Your task to perform on an android device: Go to sound settings Image 0: 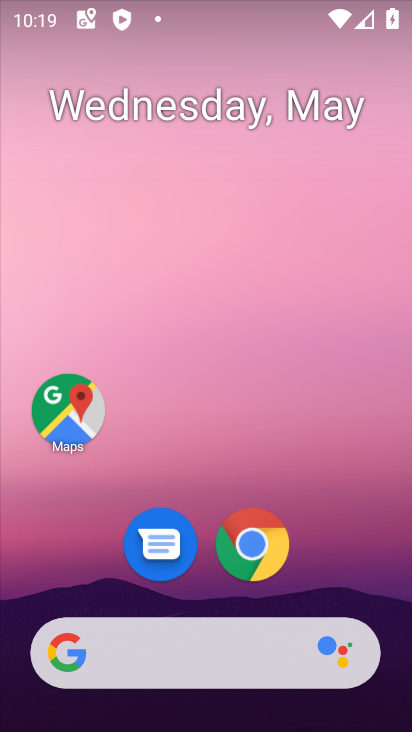
Step 0: drag from (276, 668) to (320, 221)
Your task to perform on an android device: Go to sound settings Image 1: 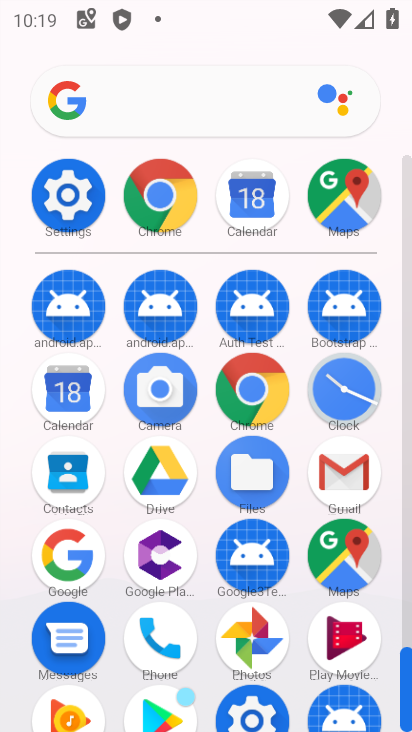
Step 1: click (72, 200)
Your task to perform on an android device: Go to sound settings Image 2: 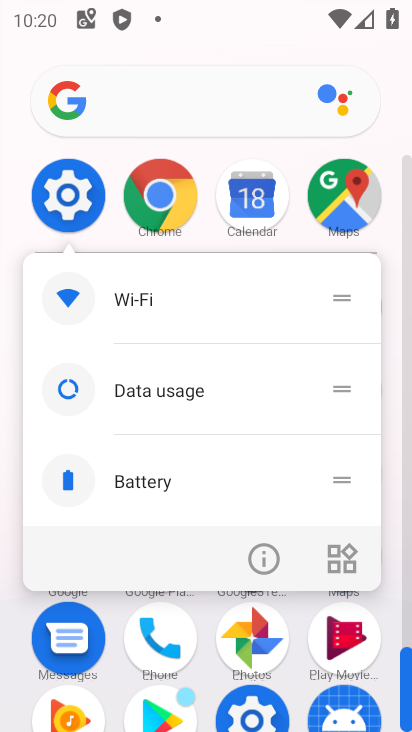
Step 2: click (90, 205)
Your task to perform on an android device: Go to sound settings Image 3: 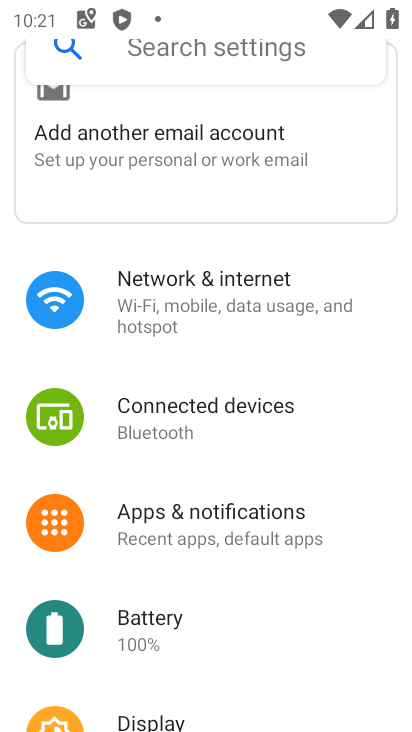
Step 3: drag from (294, 705) to (316, 321)
Your task to perform on an android device: Go to sound settings Image 4: 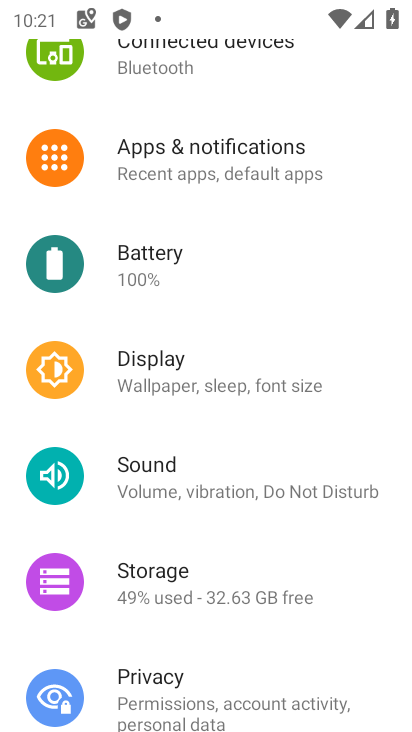
Step 4: click (192, 509)
Your task to perform on an android device: Go to sound settings Image 5: 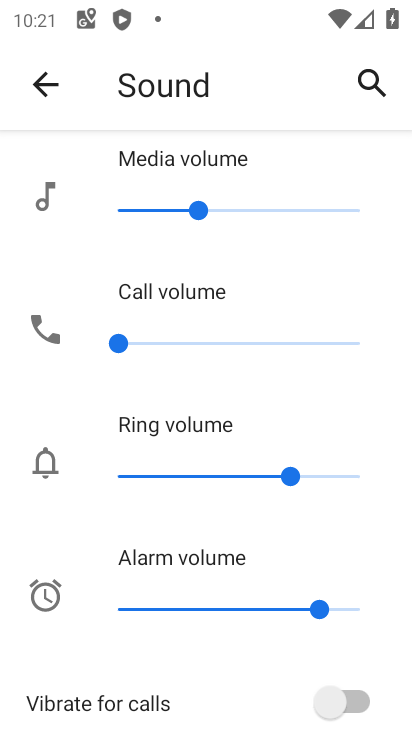
Step 5: task complete